Your task to perform on an android device: see sites visited before in the chrome app Image 0: 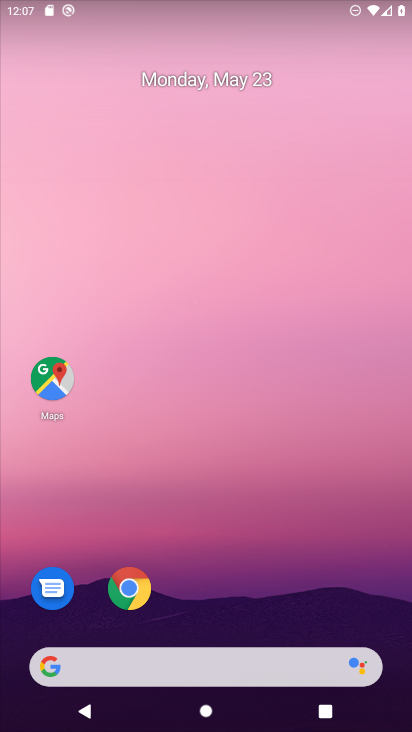
Step 0: drag from (256, 689) to (280, 197)
Your task to perform on an android device: see sites visited before in the chrome app Image 1: 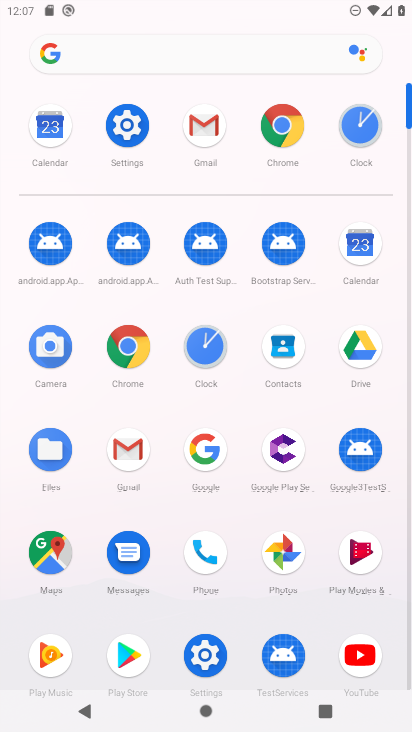
Step 1: click (282, 134)
Your task to perform on an android device: see sites visited before in the chrome app Image 2: 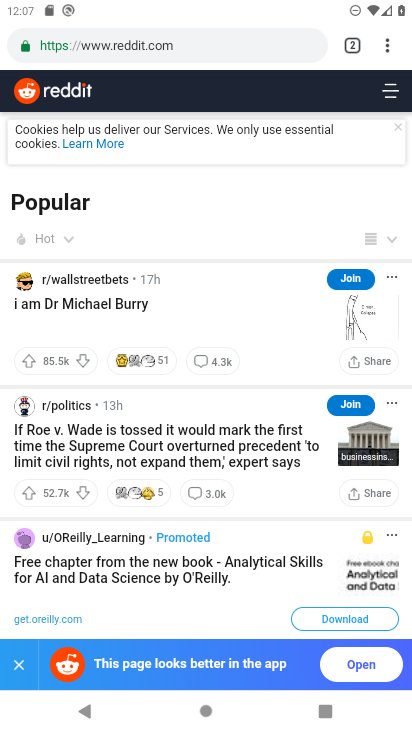
Step 2: click (382, 42)
Your task to perform on an android device: see sites visited before in the chrome app Image 3: 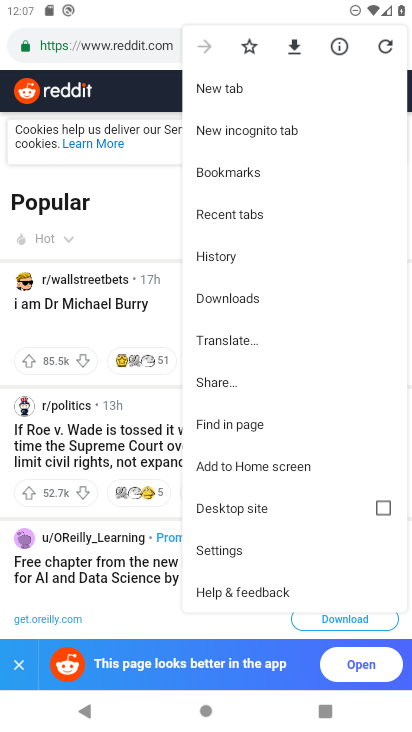
Step 3: click (219, 549)
Your task to perform on an android device: see sites visited before in the chrome app Image 4: 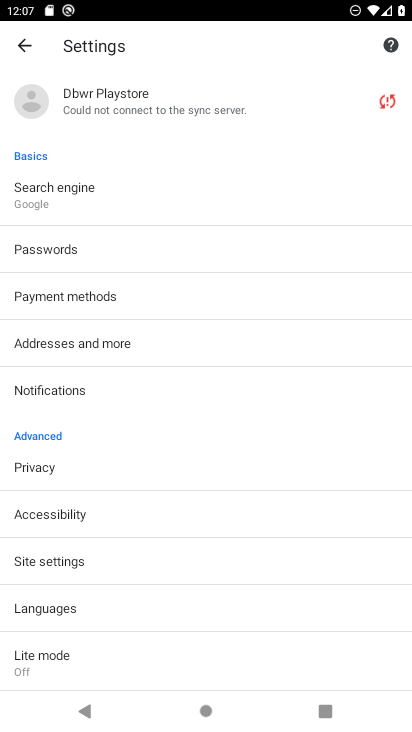
Step 4: click (73, 557)
Your task to perform on an android device: see sites visited before in the chrome app Image 5: 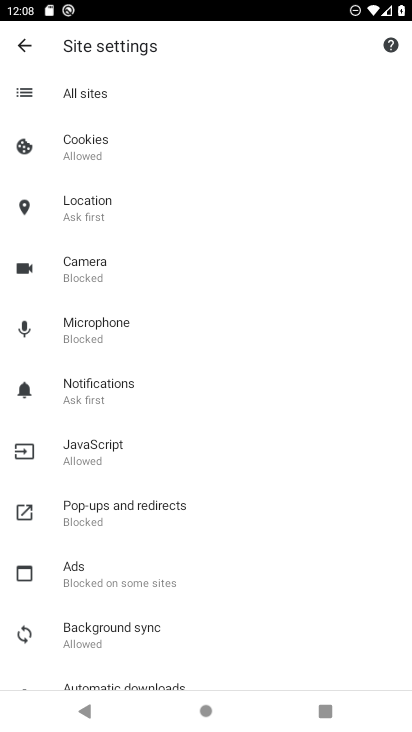
Step 5: click (155, 99)
Your task to perform on an android device: see sites visited before in the chrome app Image 6: 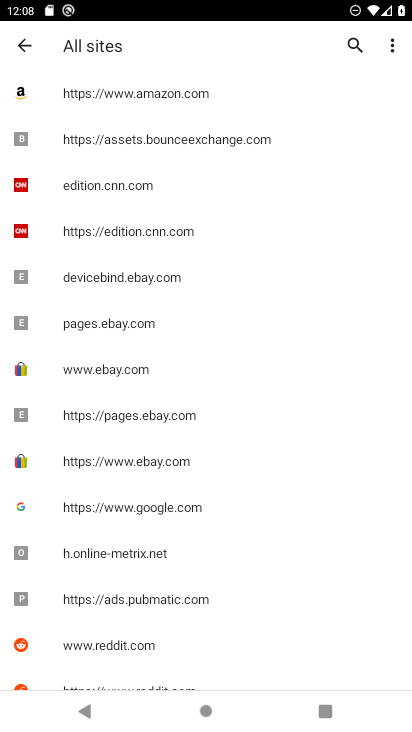
Step 6: task complete